Your task to perform on an android device: open app "Etsy: Buy & Sell Unique Items" Image 0: 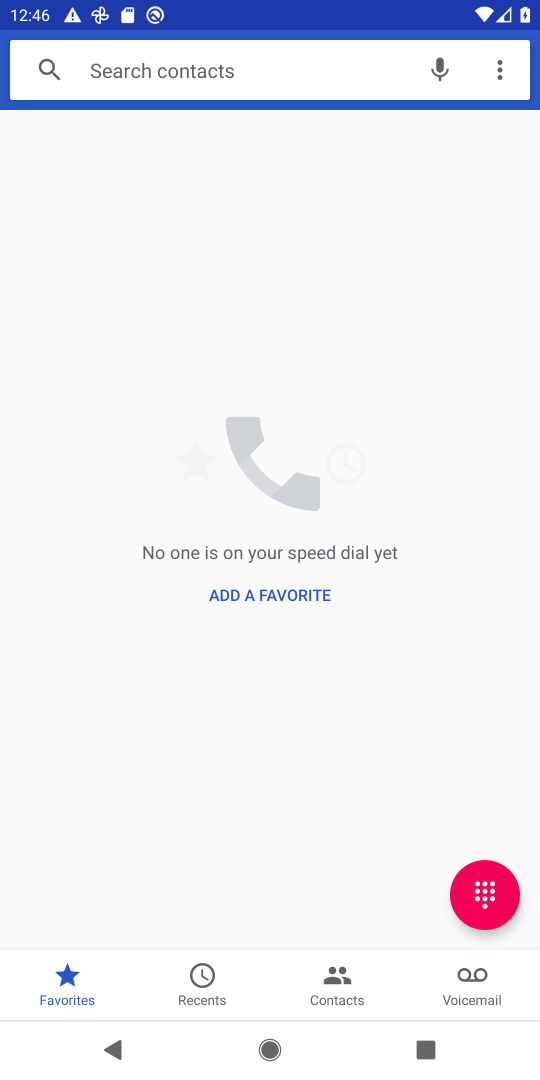
Step 0: press home button
Your task to perform on an android device: open app "Etsy: Buy & Sell Unique Items" Image 1: 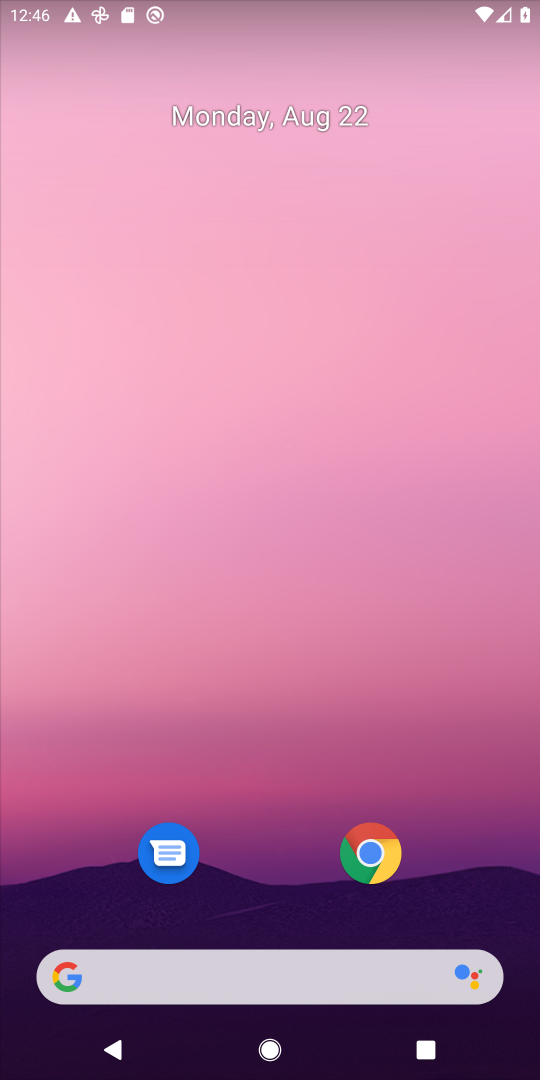
Step 1: drag from (235, 985) to (267, 269)
Your task to perform on an android device: open app "Etsy: Buy & Sell Unique Items" Image 2: 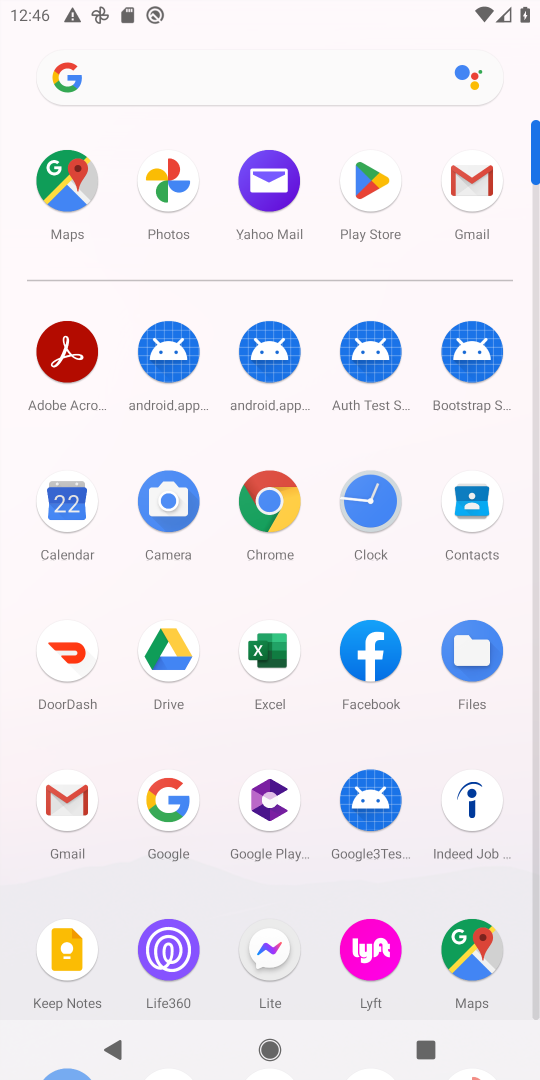
Step 2: click (364, 188)
Your task to perform on an android device: open app "Etsy: Buy & Sell Unique Items" Image 3: 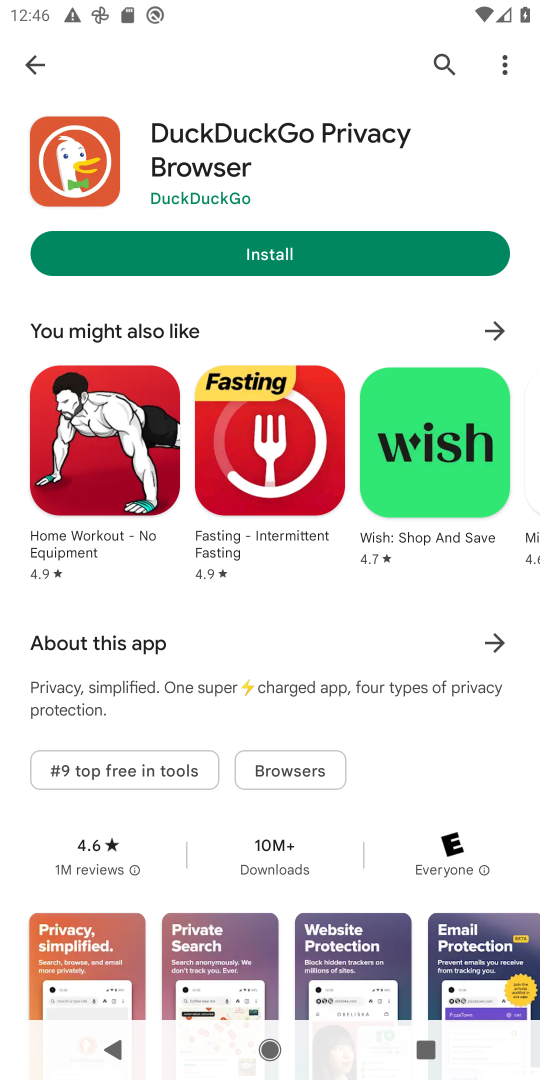
Step 3: click (27, 75)
Your task to perform on an android device: open app "Etsy: Buy & Sell Unique Items" Image 4: 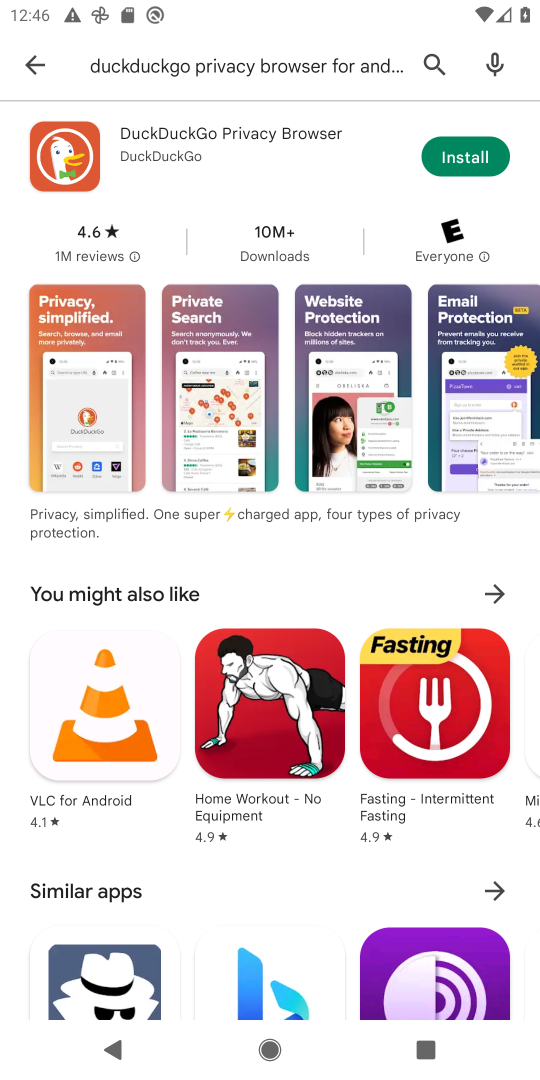
Step 4: click (15, 64)
Your task to perform on an android device: open app "Etsy: Buy & Sell Unique Items" Image 5: 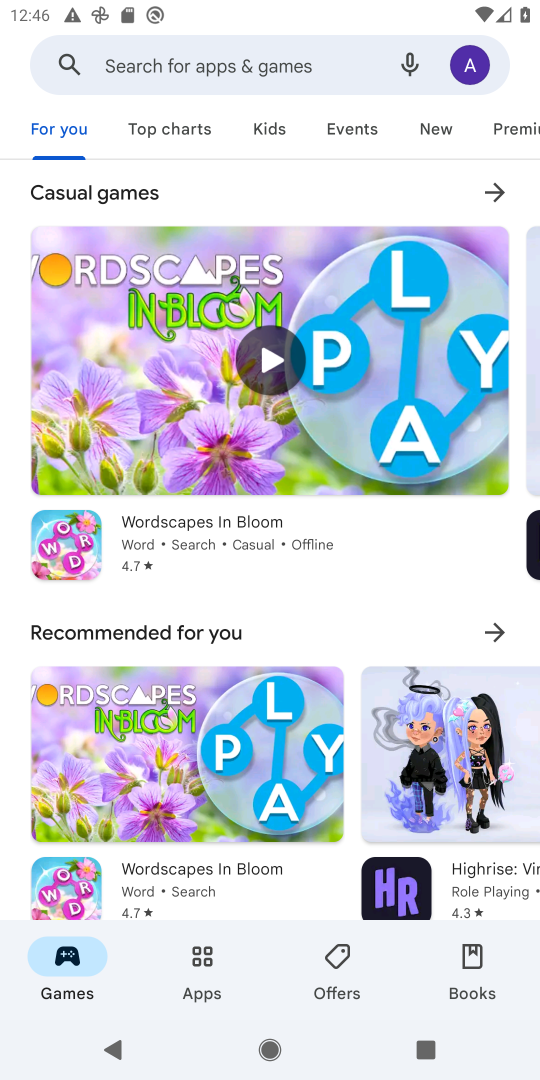
Step 5: click (222, 62)
Your task to perform on an android device: open app "Etsy: Buy & Sell Unique Items" Image 6: 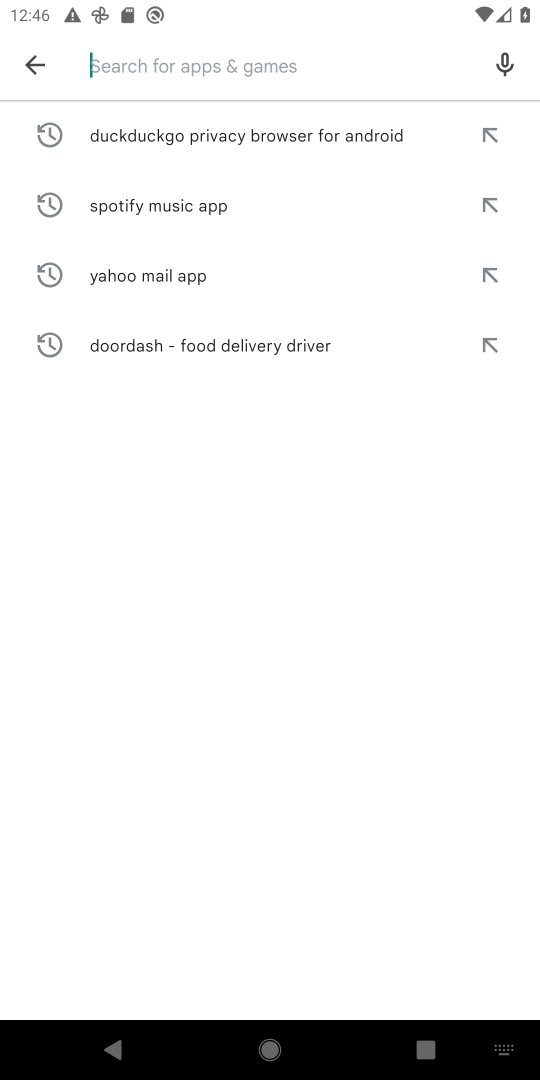
Step 6: type "Etsy: Buy & Sell Unique Items "
Your task to perform on an android device: open app "Etsy: Buy & Sell Unique Items" Image 7: 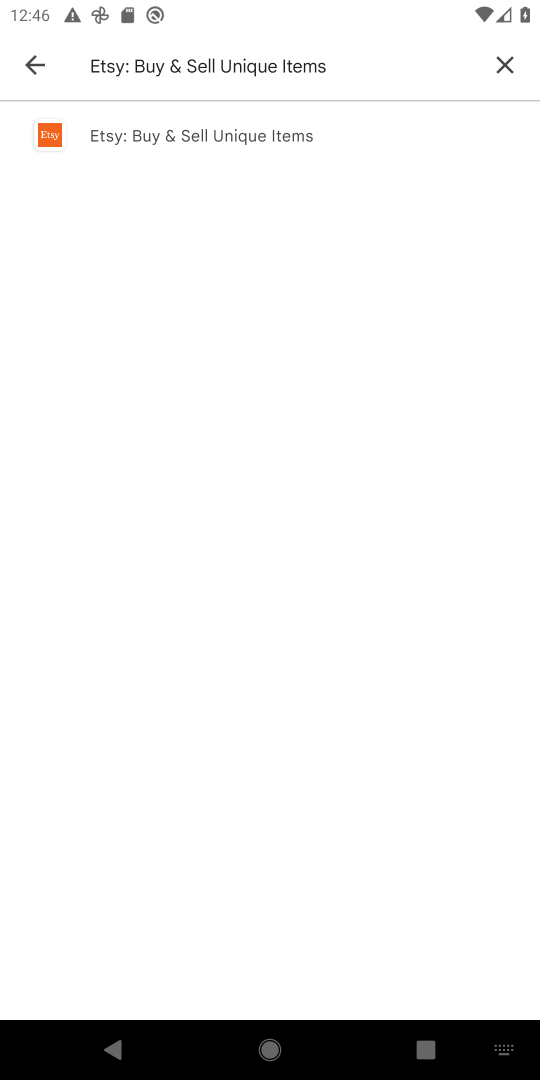
Step 7: click (228, 112)
Your task to perform on an android device: open app "Etsy: Buy & Sell Unique Items" Image 8: 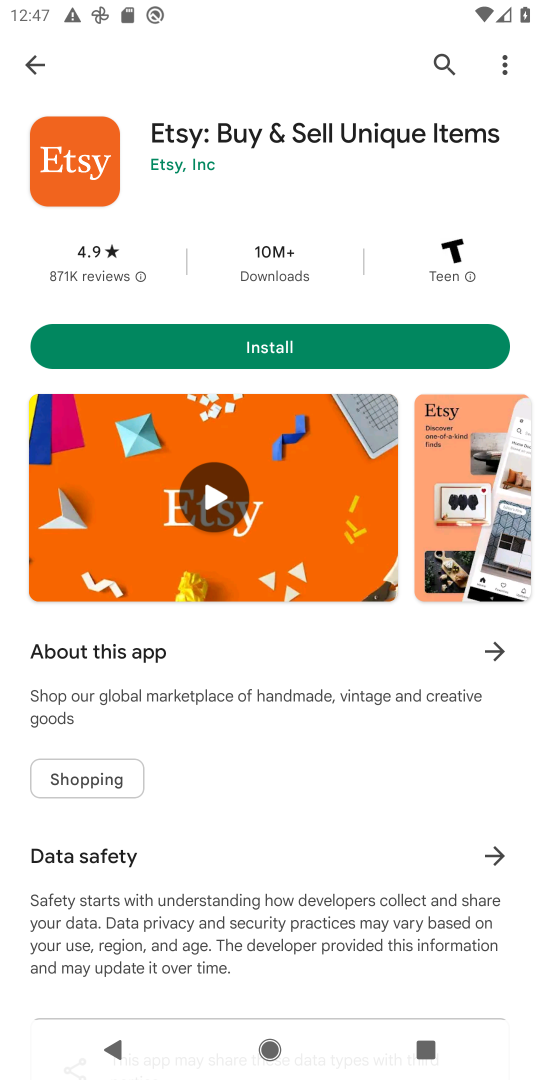
Step 8: click (313, 328)
Your task to perform on an android device: open app "Etsy: Buy & Sell Unique Items" Image 9: 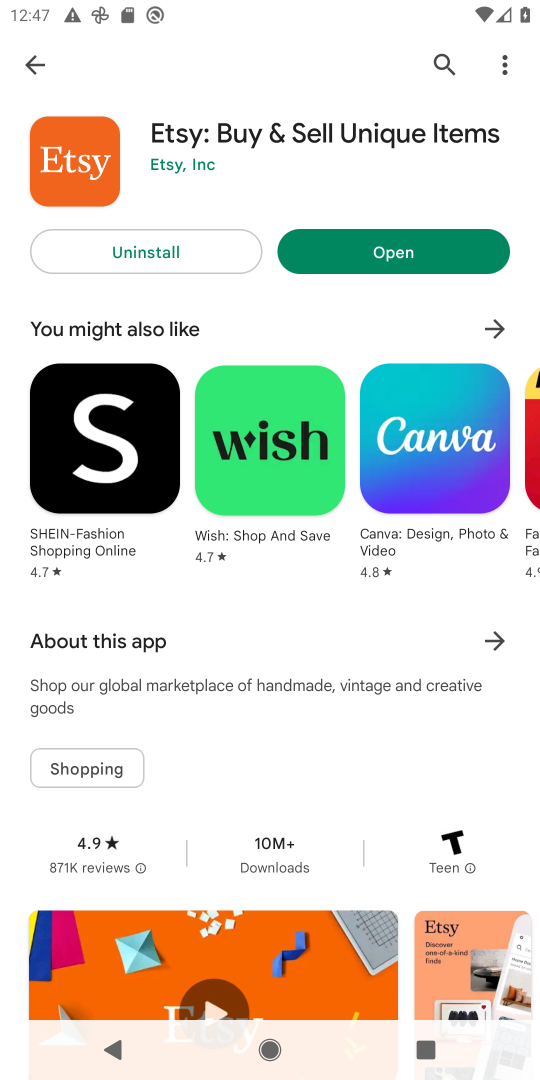
Step 9: task complete